Your task to perform on an android device: Add "apple airpods" to the cart on bestbuy.com Image 0: 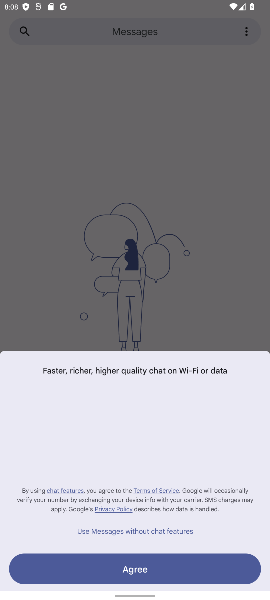
Step 0: press home button
Your task to perform on an android device: Add "apple airpods" to the cart on bestbuy.com Image 1: 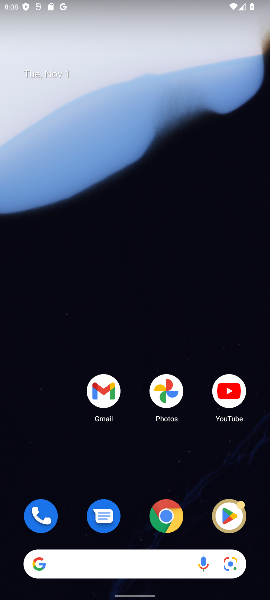
Step 1: drag from (133, 494) to (111, 121)
Your task to perform on an android device: Add "apple airpods" to the cart on bestbuy.com Image 2: 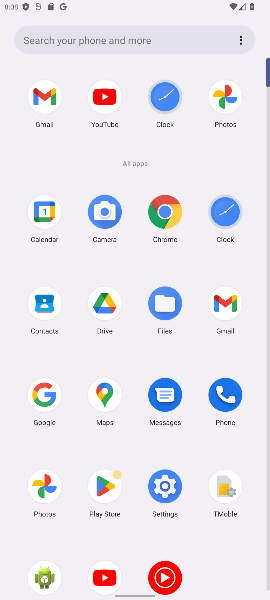
Step 2: click (164, 208)
Your task to perform on an android device: Add "apple airpods" to the cart on bestbuy.com Image 3: 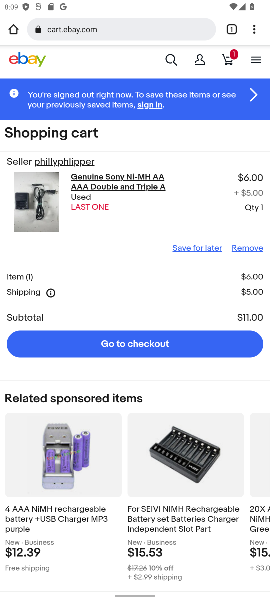
Step 3: click (98, 29)
Your task to perform on an android device: Add "apple airpods" to the cart on bestbuy.com Image 4: 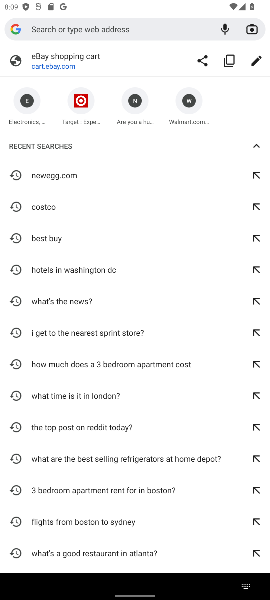
Step 4: click (58, 236)
Your task to perform on an android device: Add "apple airpods" to the cart on bestbuy.com Image 5: 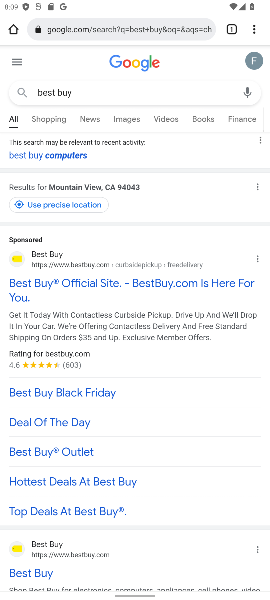
Step 5: click (87, 283)
Your task to perform on an android device: Add "apple airpods" to the cart on bestbuy.com Image 6: 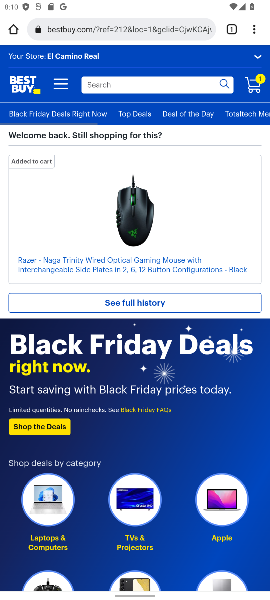
Step 6: click (101, 81)
Your task to perform on an android device: Add "apple airpods" to the cart on bestbuy.com Image 7: 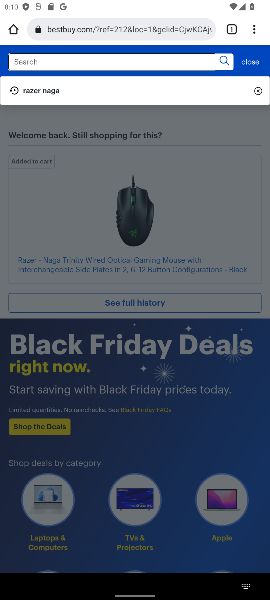
Step 7: type "apple airpods"
Your task to perform on an android device: Add "apple airpods" to the cart on bestbuy.com Image 8: 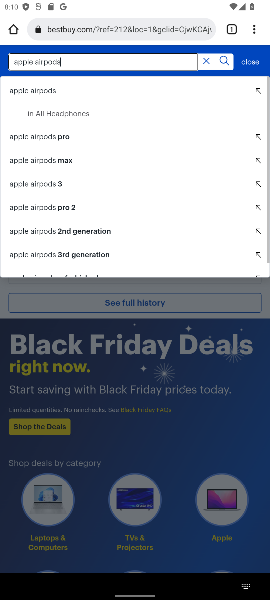
Step 8: click (71, 97)
Your task to perform on an android device: Add "apple airpods" to the cart on bestbuy.com Image 9: 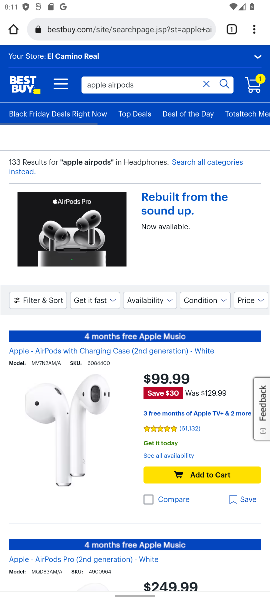
Step 9: click (251, 80)
Your task to perform on an android device: Add "apple airpods" to the cart on bestbuy.com Image 10: 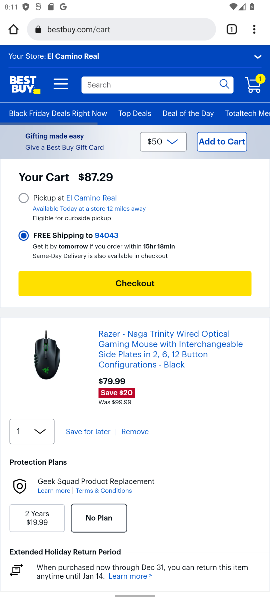
Step 10: task complete